Your task to perform on an android device: Open Chrome and go to settings Image 0: 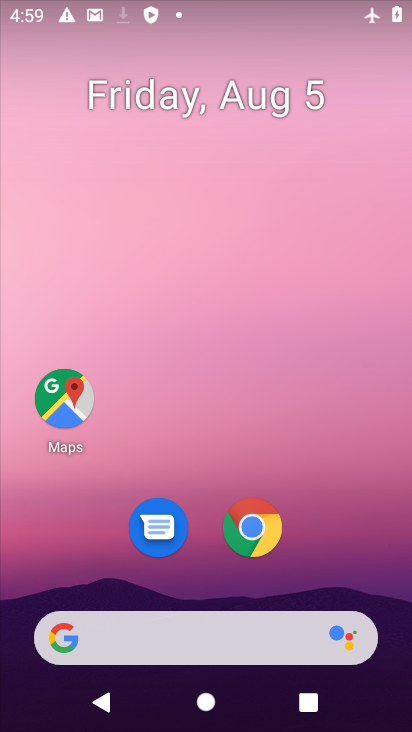
Step 0: drag from (206, 452) to (217, 71)
Your task to perform on an android device: Open Chrome and go to settings Image 1: 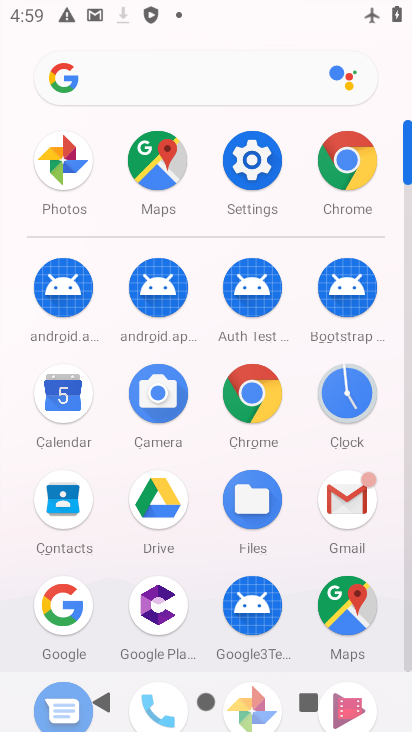
Step 1: click (356, 163)
Your task to perform on an android device: Open Chrome and go to settings Image 2: 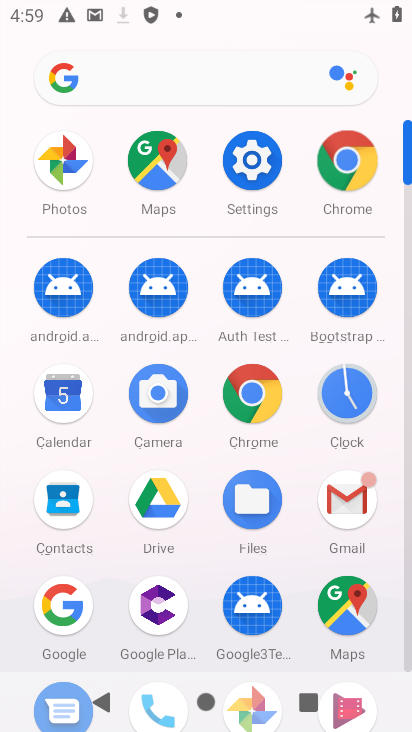
Step 2: click (356, 163)
Your task to perform on an android device: Open Chrome and go to settings Image 3: 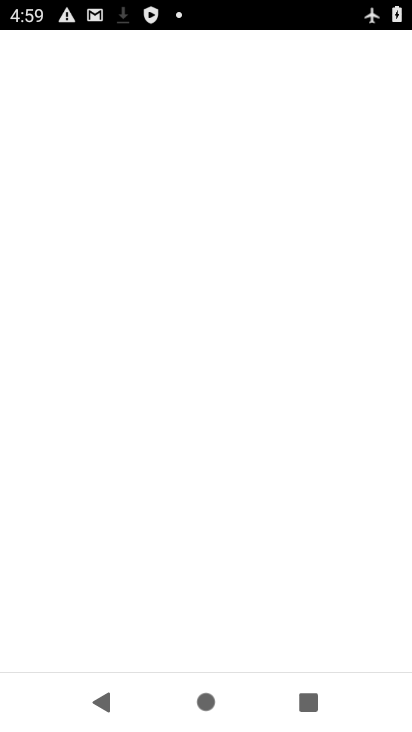
Step 3: click (356, 163)
Your task to perform on an android device: Open Chrome and go to settings Image 4: 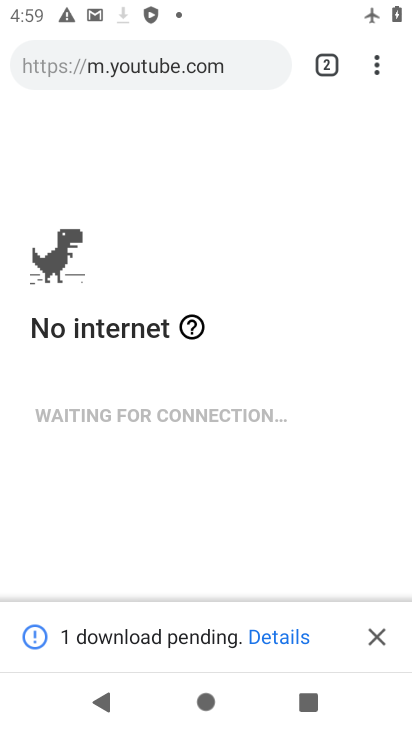
Step 4: task complete